Your task to perform on an android device: allow cookies in the chrome app Image 0: 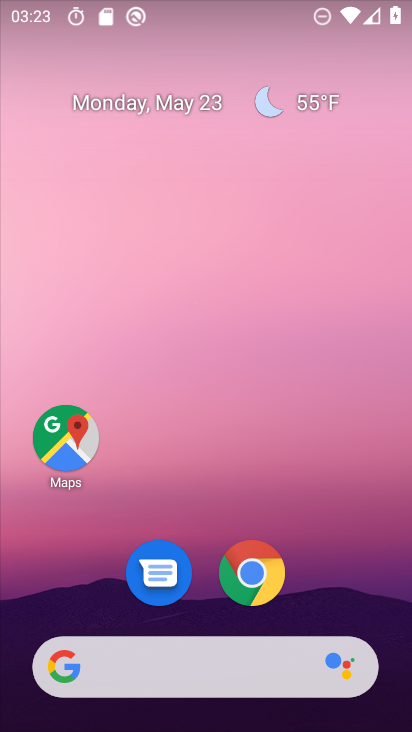
Step 0: click (255, 577)
Your task to perform on an android device: allow cookies in the chrome app Image 1: 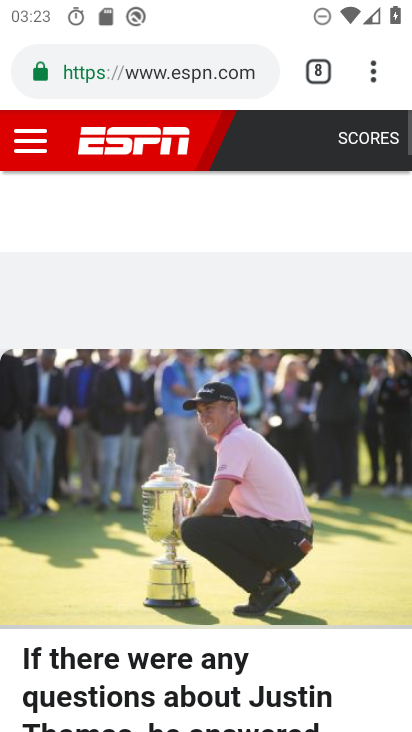
Step 1: click (378, 74)
Your task to perform on an android device: allow cookies in the chrome app Image 2: 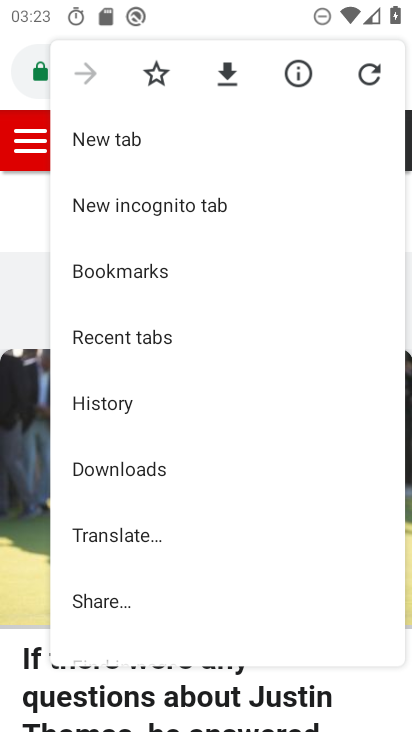
Step 2: drag from (163, 610) to (183, 173)
Your task to perform on an android device: allow cookies in the chrome app Image 3: 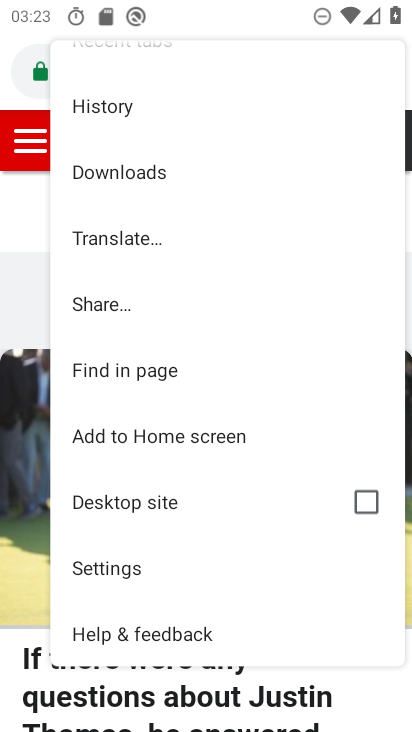
Step 3: click (126, 559)
Your task to perform on an android device: allow cookies in the chrome app Image 4: 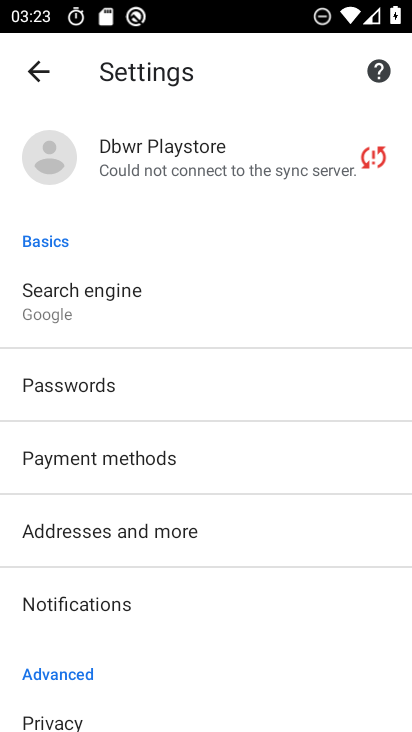
Step 4: drag from (252, 630) to (266, 190)
Your task to perform on an android device: allow cookies in the chrome app Image 5: 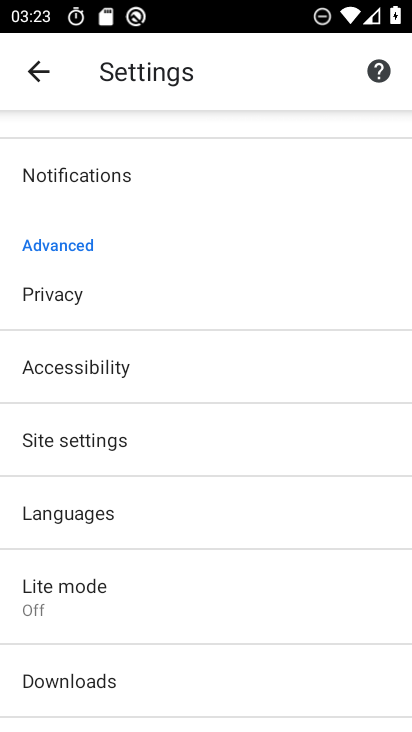
Step 5: click (127, 443)
Your task to perform on an android device: allow cookies in the chrome app Image 6: 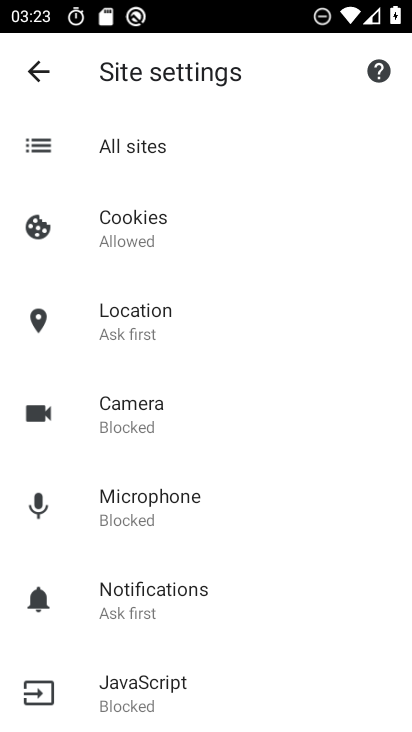
Step 6: click (167, 227)
Your task to perform on an android device: allow cookies in the chrome app Image 7: 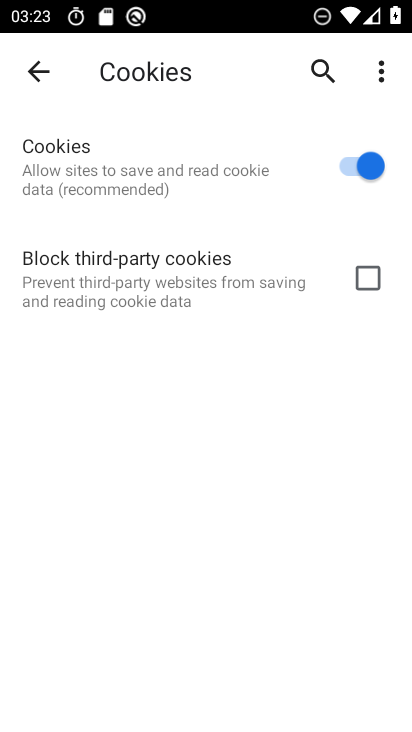
Step 7: task complete